Your task to perform on an android device: Show the shopping cart on costco.com. Image 0: 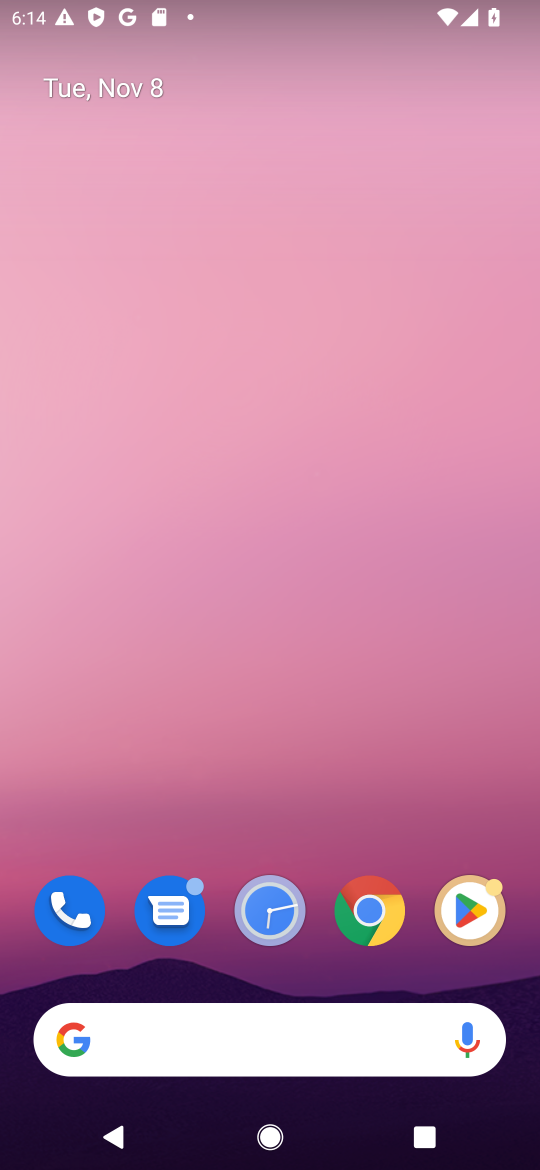
Step 0: click (374, 917)
Your task to perform on an android device: Show the shopping cart on costco.com. Image 1: 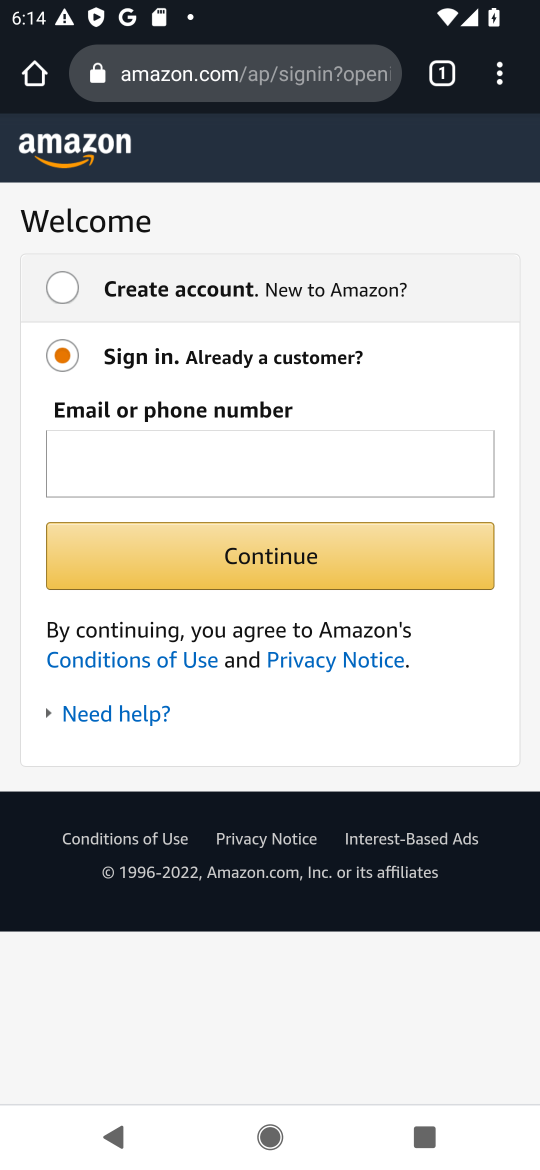
Step 1: click (445, 75)
Your task to perform on an android device: Show the shopping cart on costco.com. Image 2: 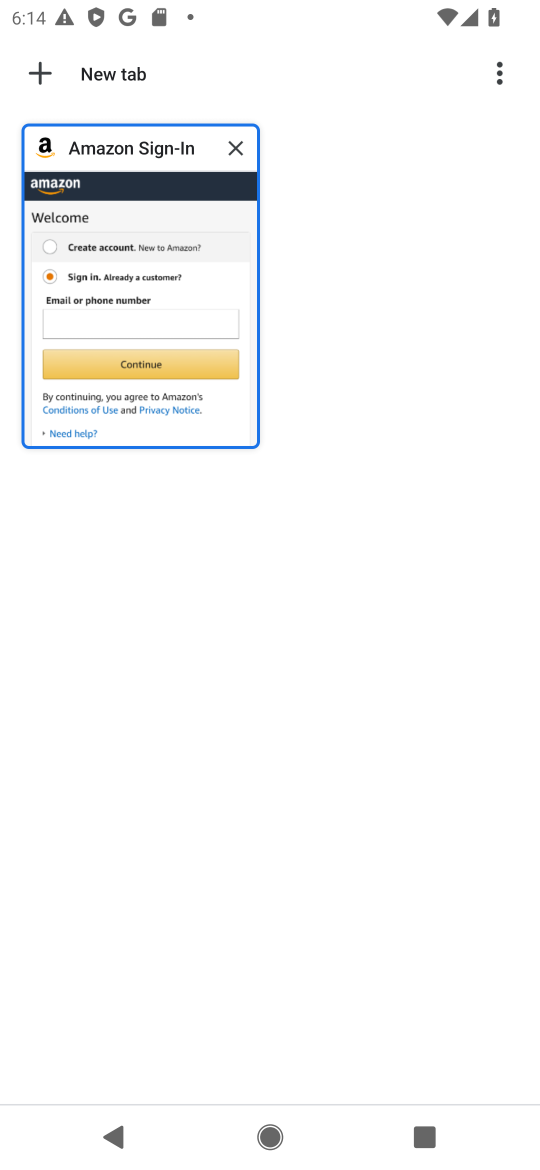
Step 2: click (46, 69)
Your task to perform on an android device: Show the shopping cart on costco.com. Image 3: 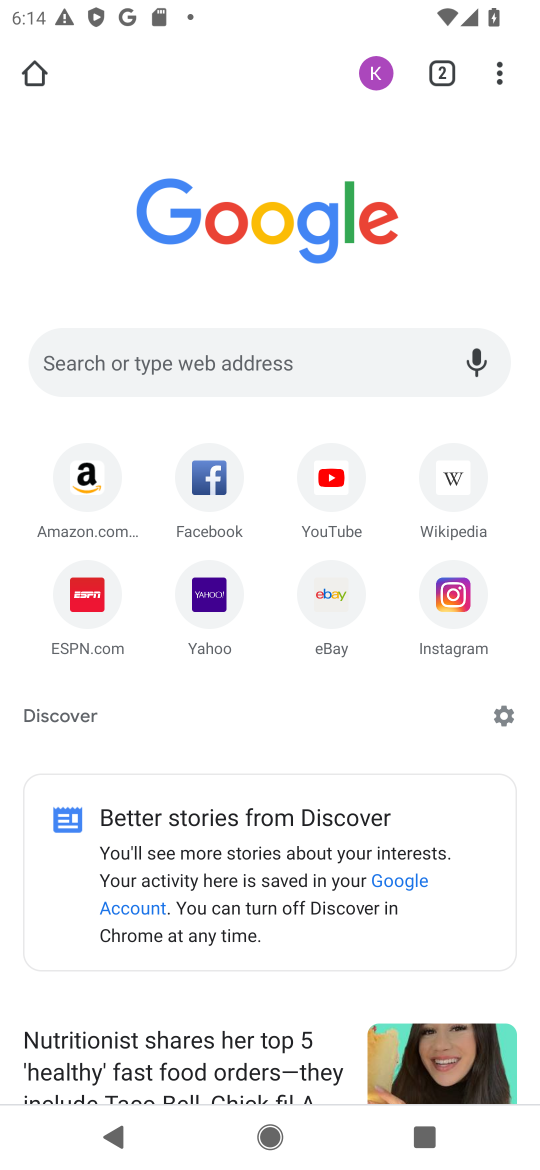
Step 3: click (179, 362)
Your task to perform on an android device: Show the shopping cart on costco.com. Image 4: 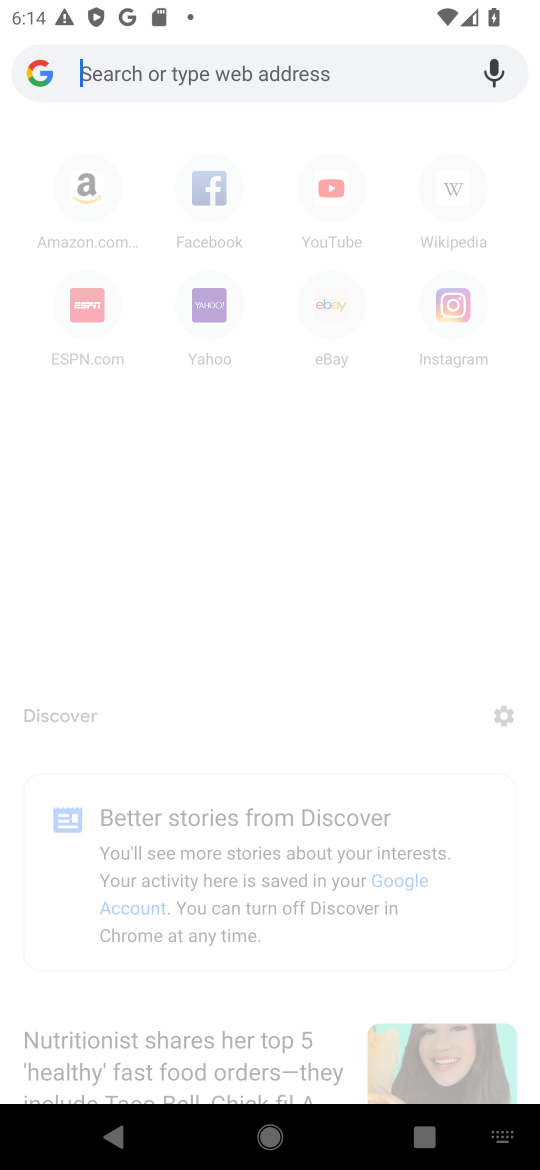
Step 4: type "costco"
Your task to perform on an android device: Show the shopping cart on costco.com. Image 5: 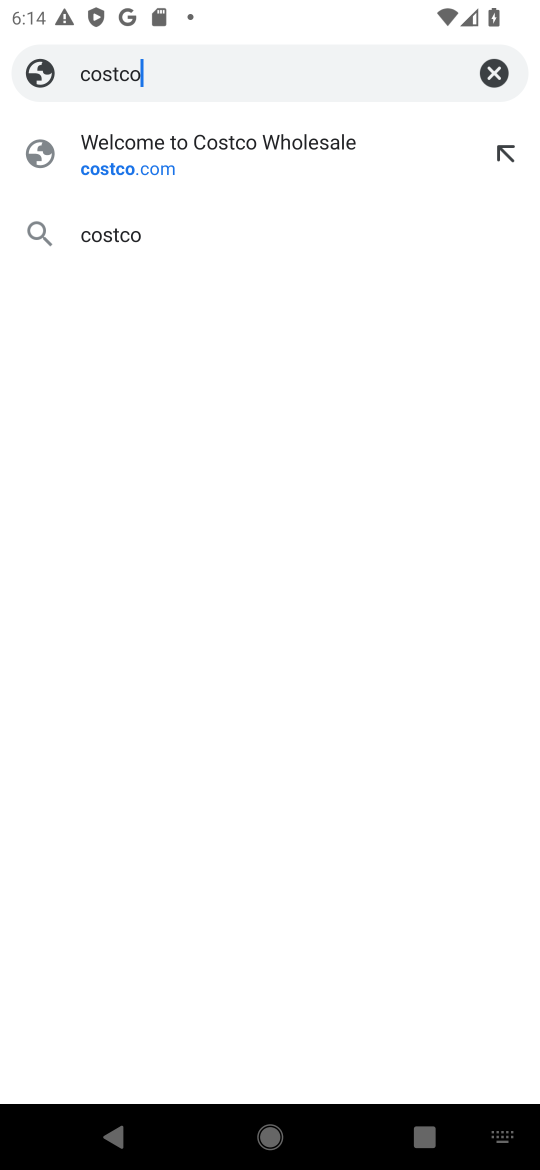
Step 5: click (241, 146)
Your task to perform on an android device: Show the shopping cart on costco.com. Image 6: 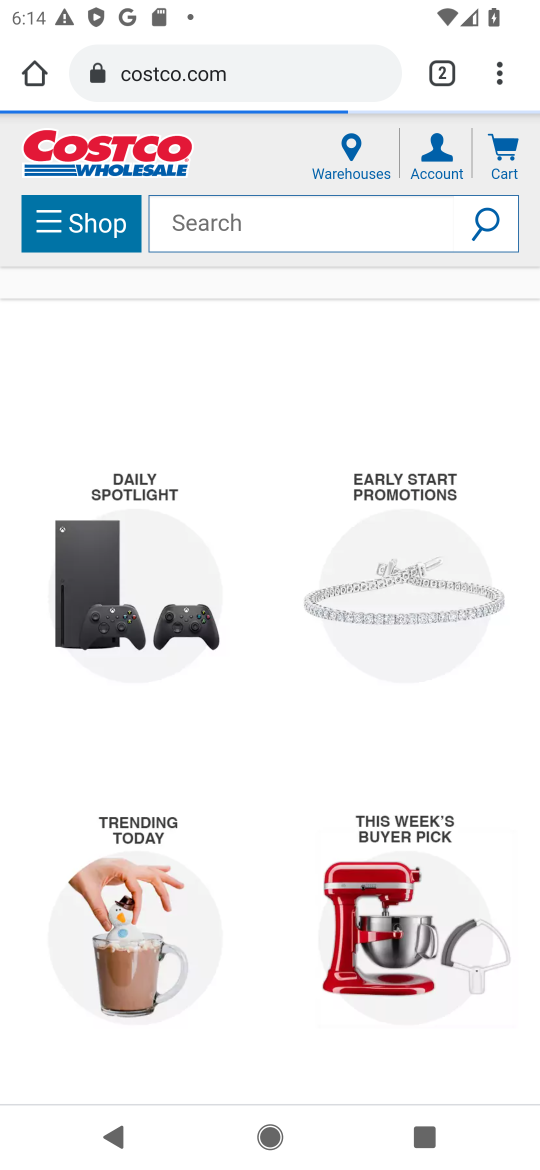
Step 6: task complete